Your task to perform on an android device: toggle airplane mode Image 0: 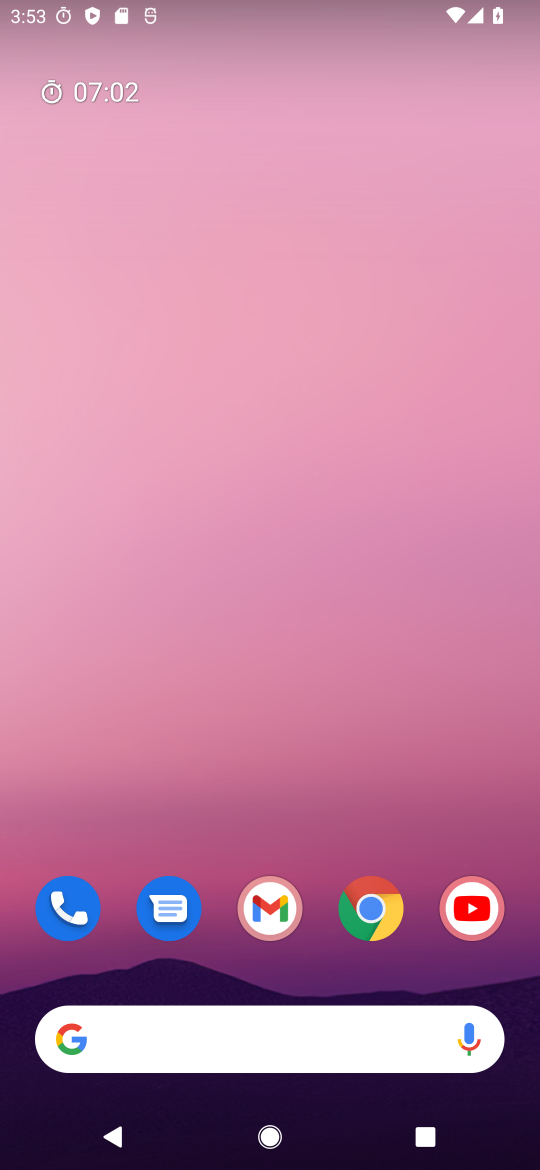
Step 0: press home button
Your task to perform on an android device: toggle airplane mode Image 1: 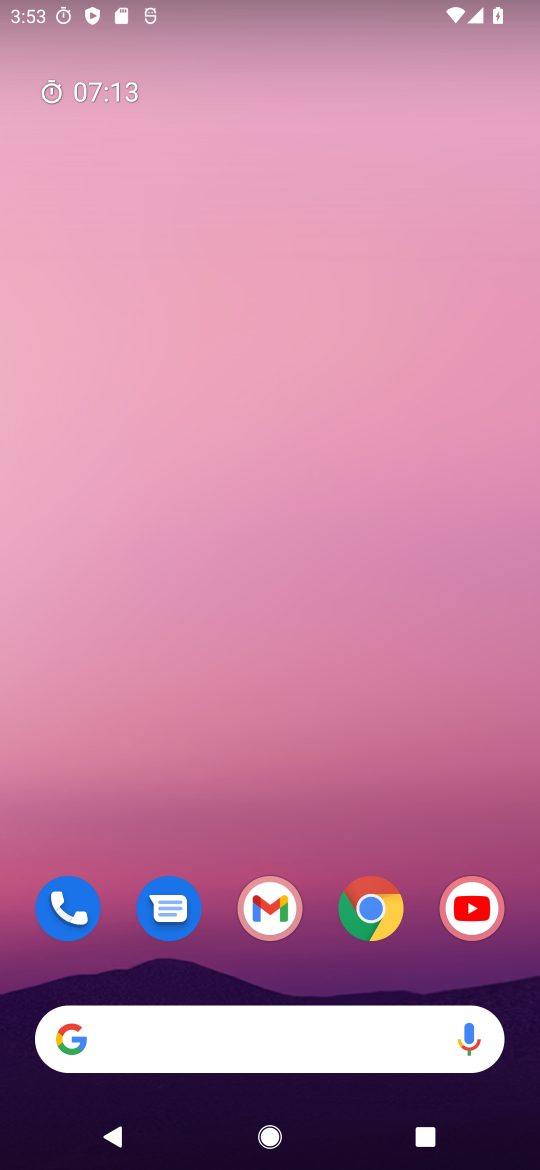
Step 1: drag from (321, 846) to (380, 0)
Your task to perform on an android device: toggle airplane mode Image 2: 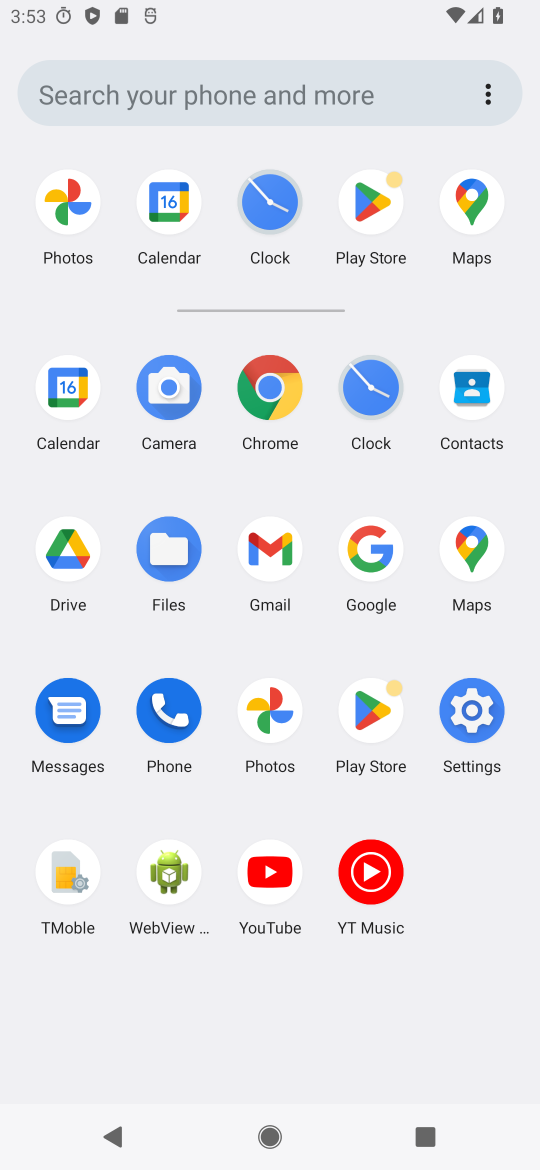
Step 2: click (479, 702)
Your task to perform on an android device: toggle airplane mode Image 3: 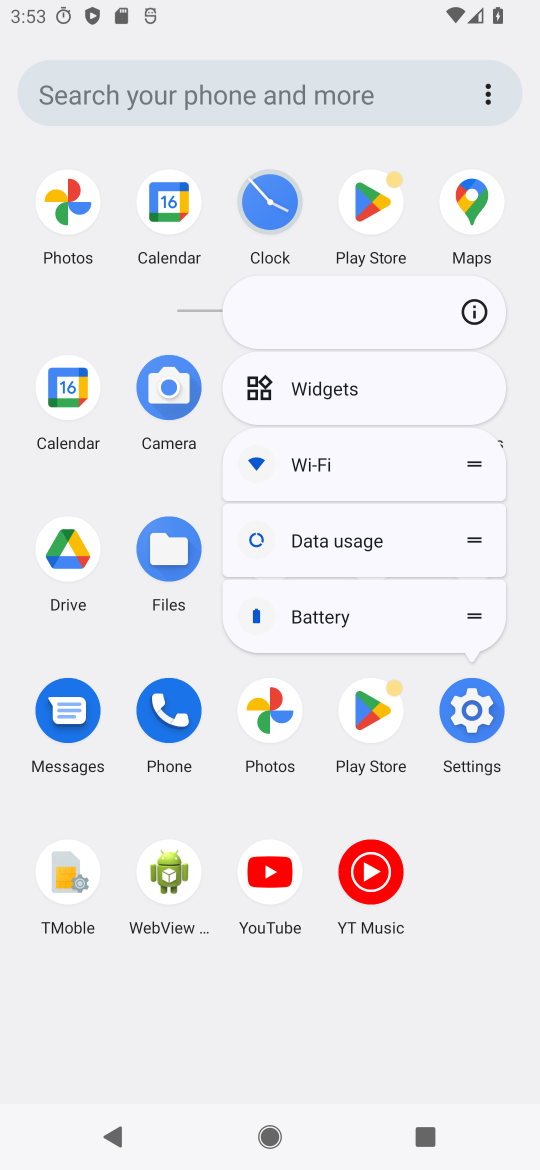
Step 3: click (470, 703)
Your task to perform on an android device: toggle airplane mode Image 4: 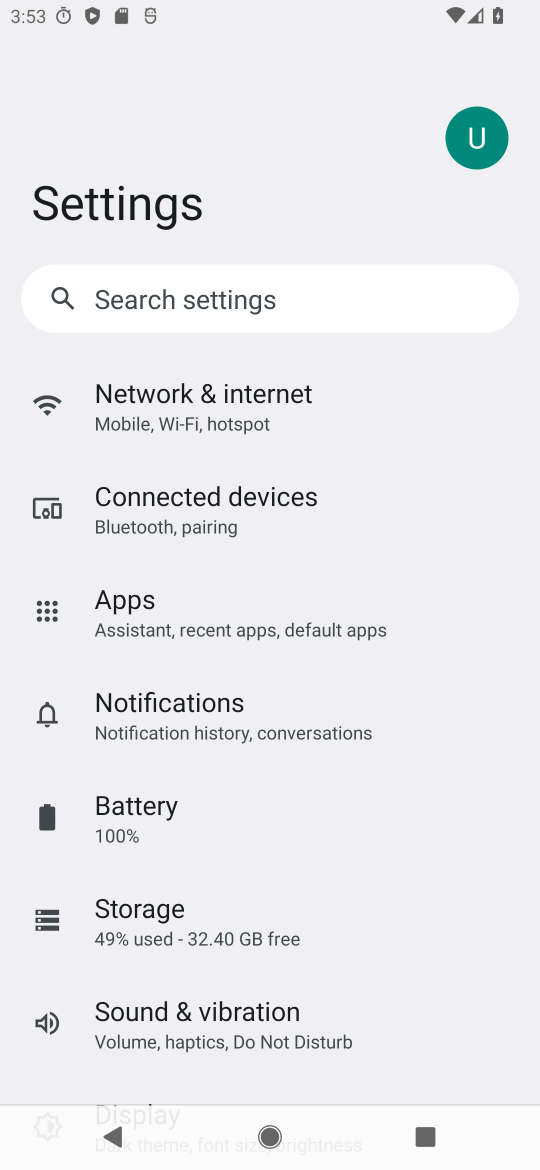
Step 4: click (243, 409)
Your task to perform on an android device: toggle airplane mode Image 5: 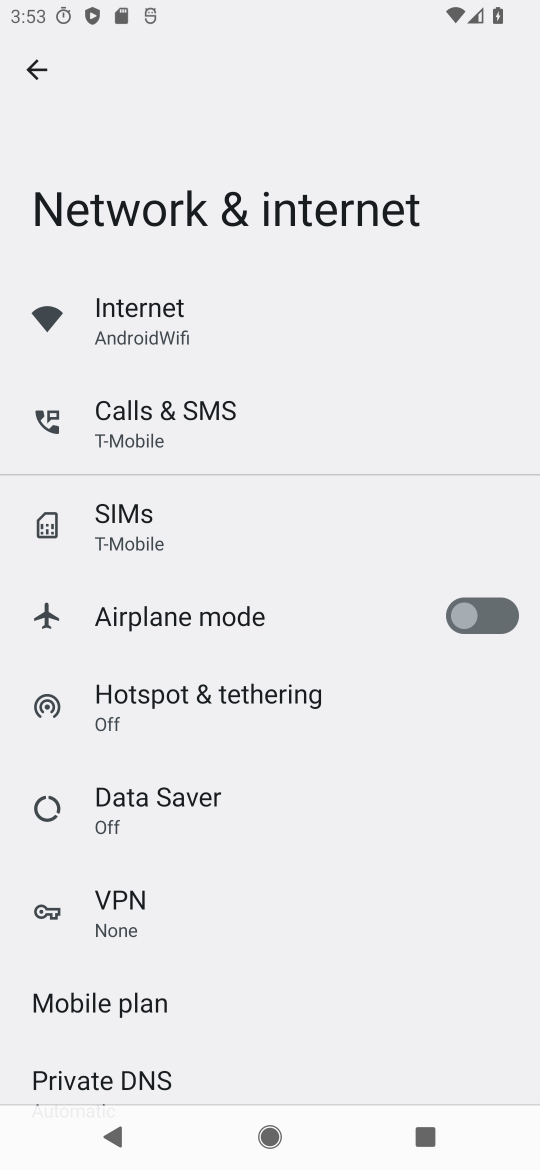
Step 5: click (486, 609)
Your task to perform on an android device: toggle airplane mode Image 6: 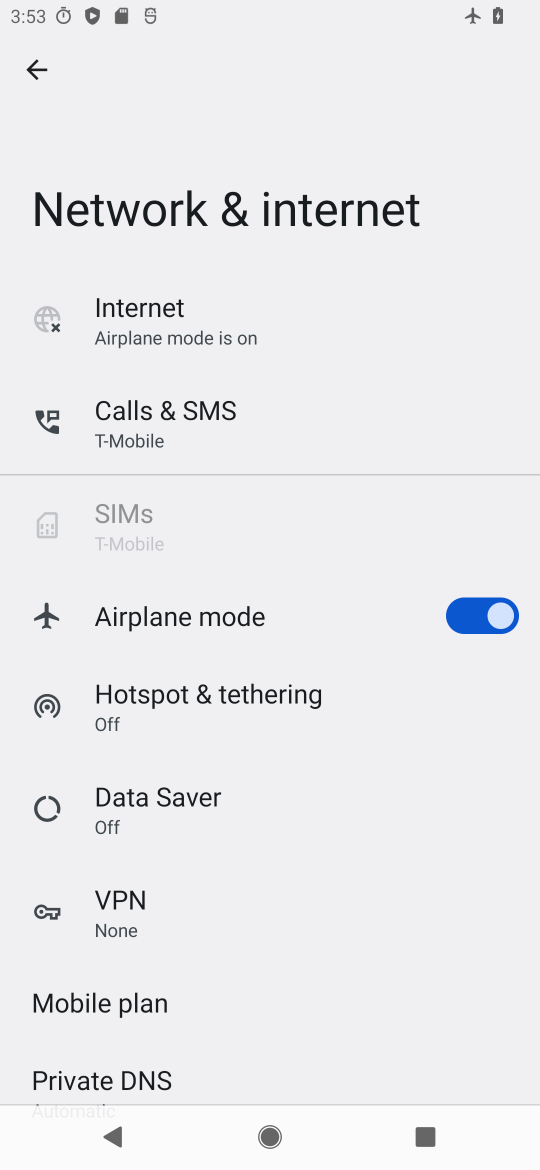
Step 6: task complete